Your task to perform on an android device: empty trash in the gmail app Image 0: 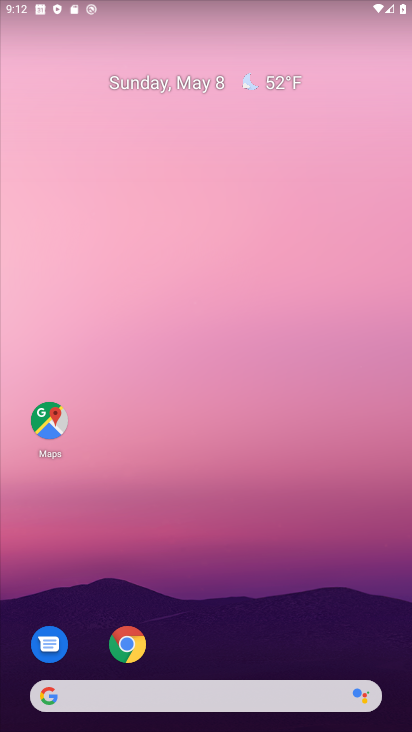
Step 0: drag from (219, 599) to (269, 217)
Your task to perform on an android device: empty trash in the gmail app Image 1: 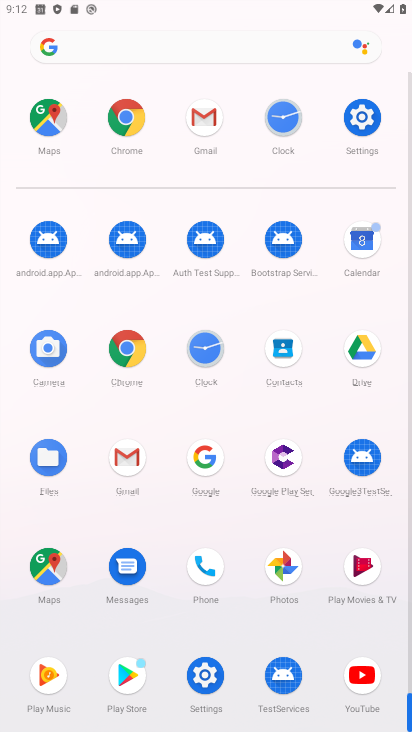
Step 1: click (124, 455)
Your task to perform on an android device: empty trash in the gmail app Image 2: 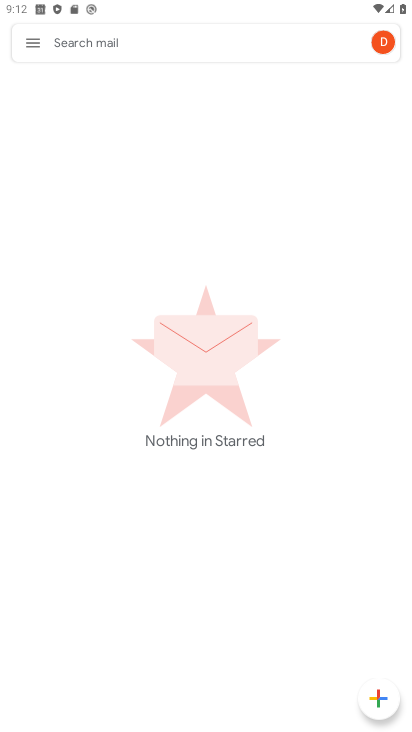
Step 2: click (23, 22)
Your task to perform on an android device: empty trash in the gmail app Image 3: 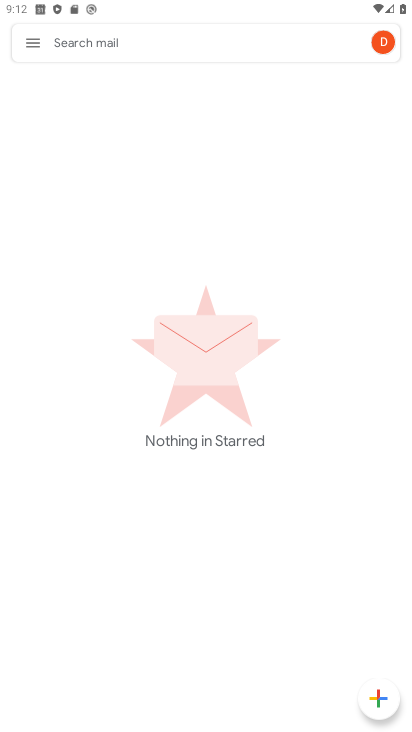
Step 3: click (23, 38)
Your task to perform on an android device: empty trash in the gmail app Image 4: 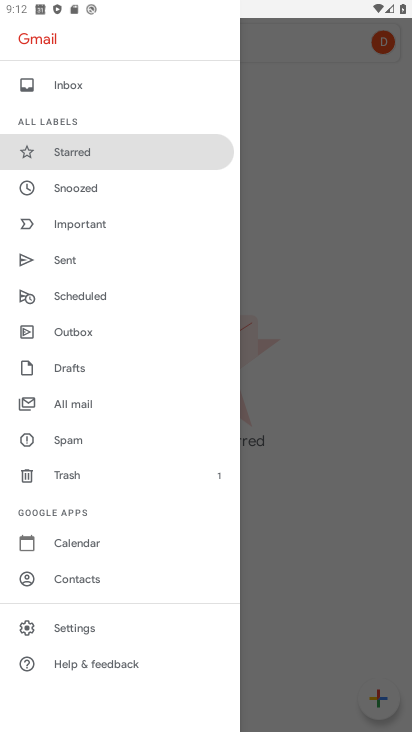
Step 4: drag from (97, 611) to (117, 217)
Your task to perform on an android device: empty trash in the gmail app Image 5: 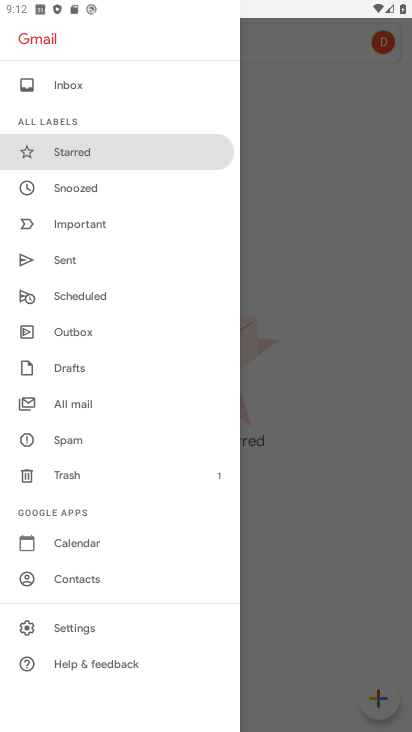
Step 5: click (81, 466)
Your task to perform on an android device: empty trash in the gmail app Image 6: 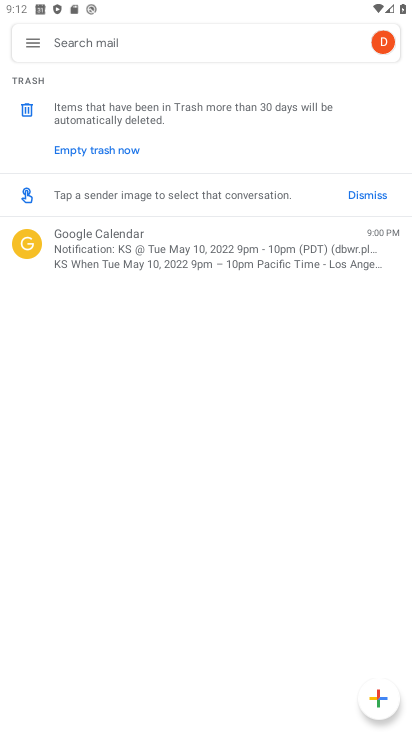
Step 6: drag from (240, 611) to (237, 161)
Your task to perform on an android device: empty trash in the gmail app Image 7: 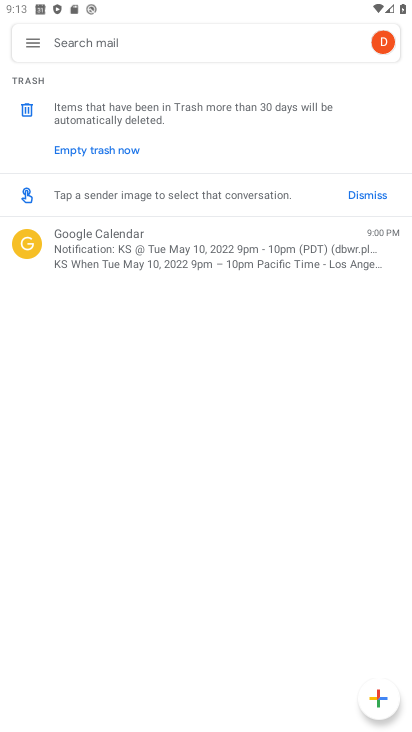
Step 7: click (21, 110)
Your task to perform on an android device: empty trash in the gmail app Image 8: 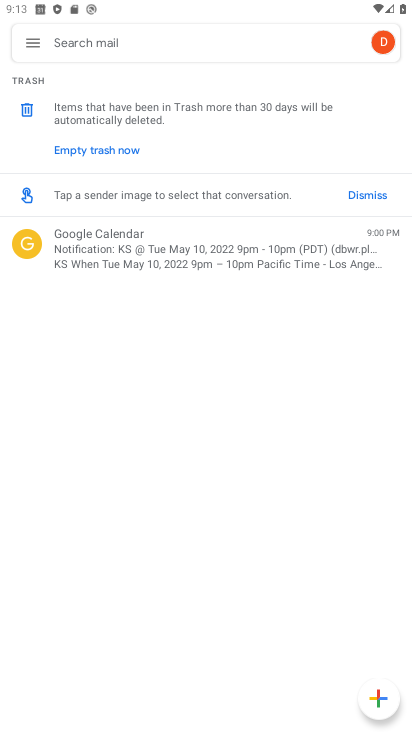
Step 8: task complete